Your task to perform on an android device: set an alarm Image 0: 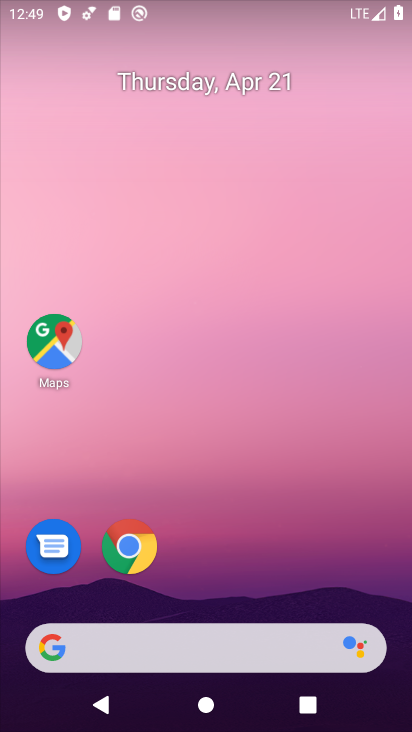
Step 0: drag from (253, 557) to (253, 113)
Your task to perform on an android device: set an alarm Image 1: 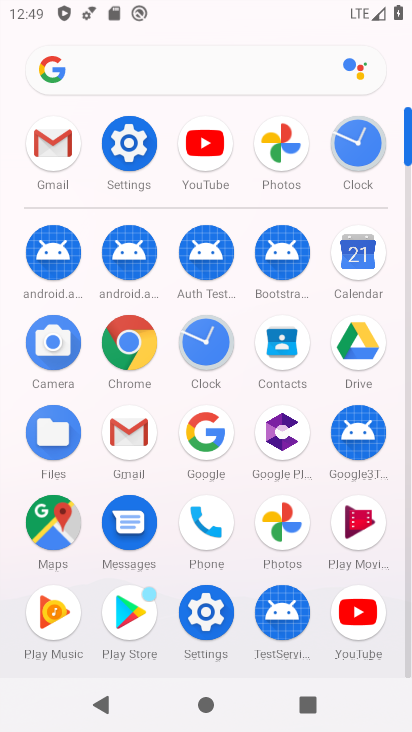
Step 1: click (197, 338)
Your task to perform on an android device: set an alarm Image 2: 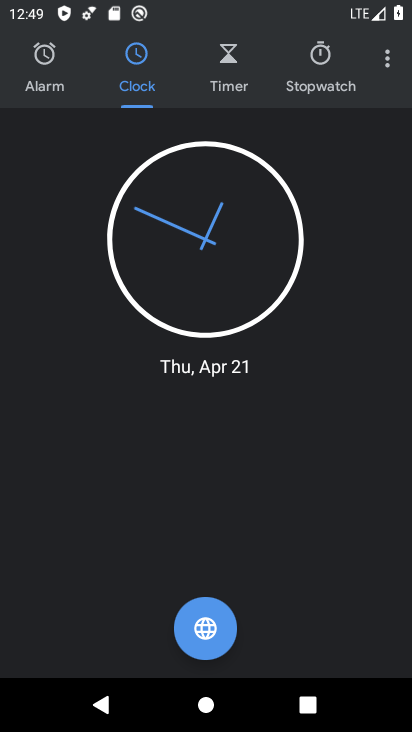
Step 2: click (38, 57)
Your task to perform on an android device: set an alarm Image 3: 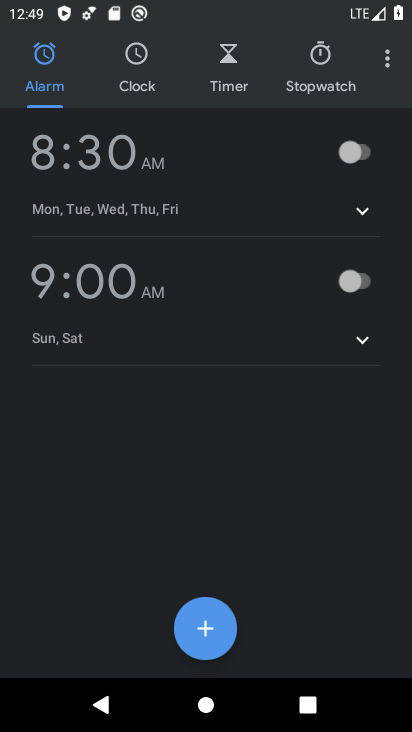
Step 3: click (204, 660)
Your task to perform on an android device: set an alarm Image 4: 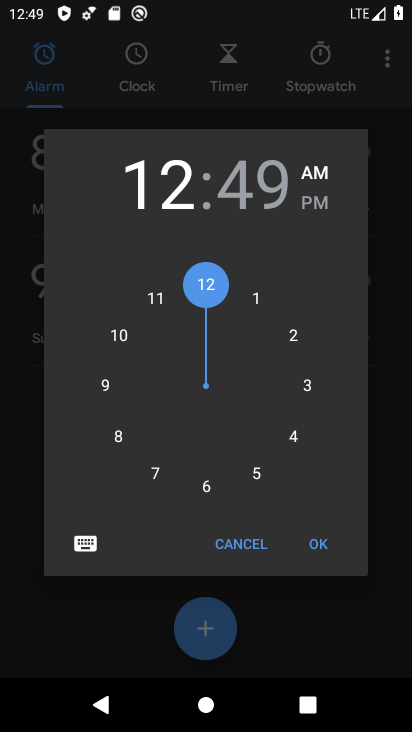
Step 4: click (252, 296)
Your task to perform on an android device: set an alarm Image 5: 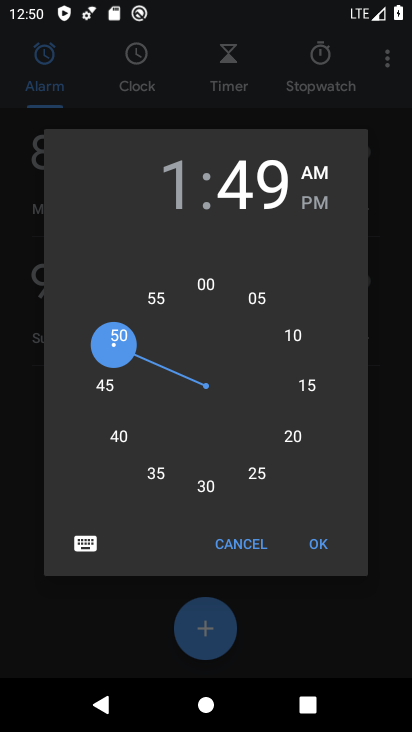
Step 5: click (321, 542)
Your task to perform on an android device: set an alarm Image 6: 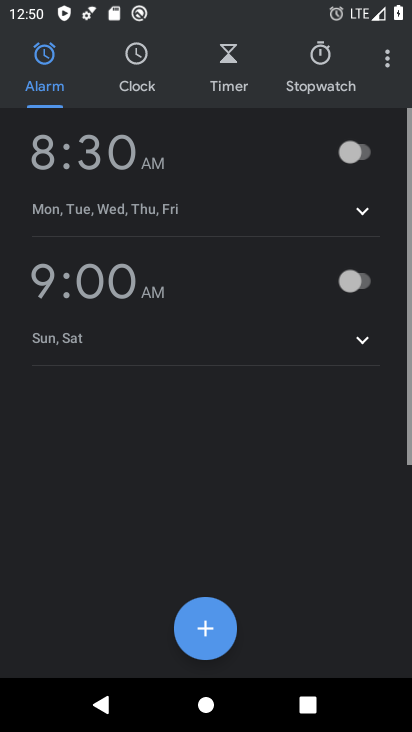
Step 6: task complete